Your task to perform on an android device: Go to internet settings Image 0: 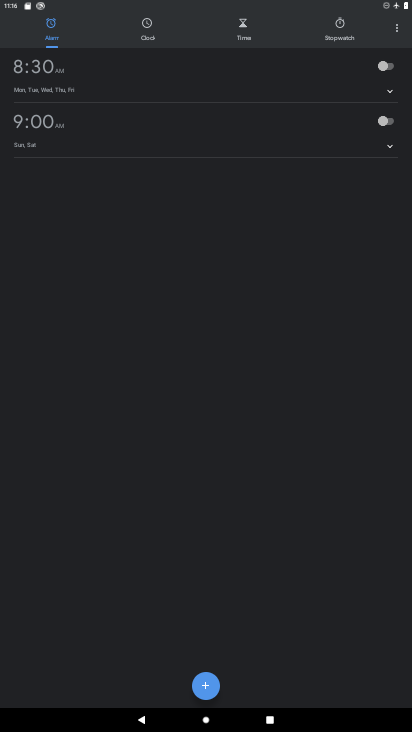
Step 0: press home button
Your task to perform on an android device: Go to internet settings Image 1: 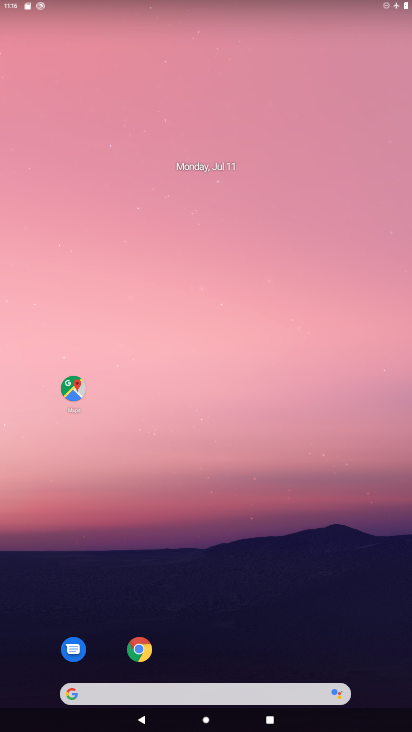
Step 1: drag from (278, 566) to (208, 114)
Your task to perform on an android device: Go to internet settings Image 2: 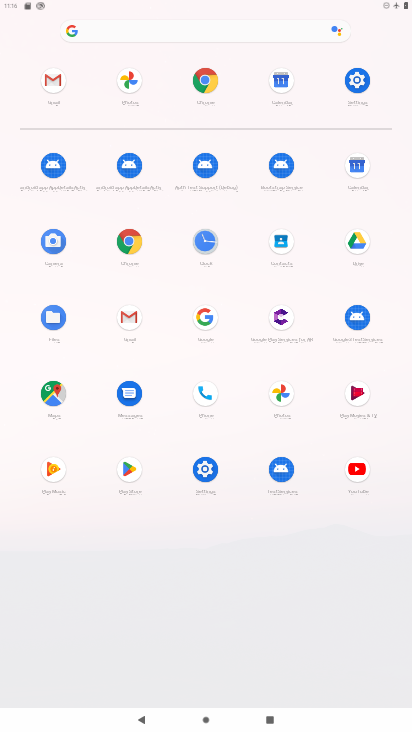
Step 2: click (361, 82)
Your task to perform on an android device: Go to internet settings Image 3: 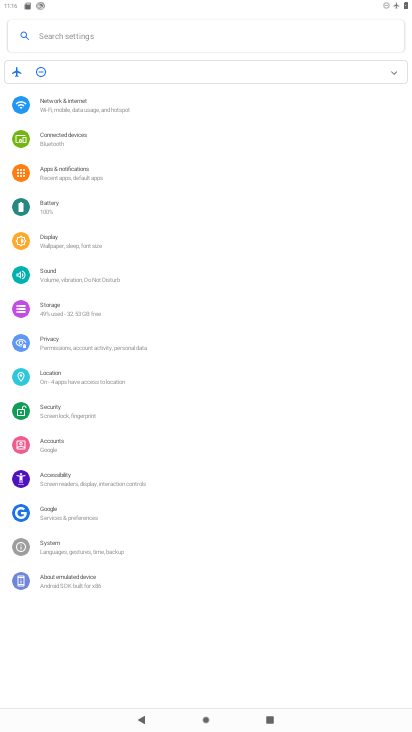
Step 3: click (82, 109)
Your task to perform on an android device: Go to internet settings Image 4: 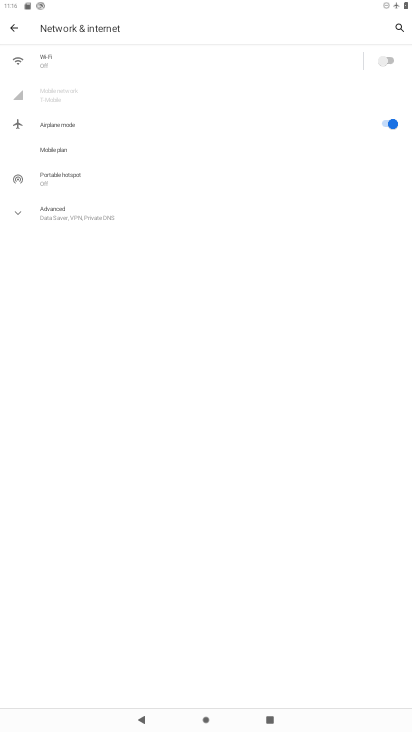
Step 4: click (72, 216)
Your task to perform on an android device: Go to internet settings Image 5: 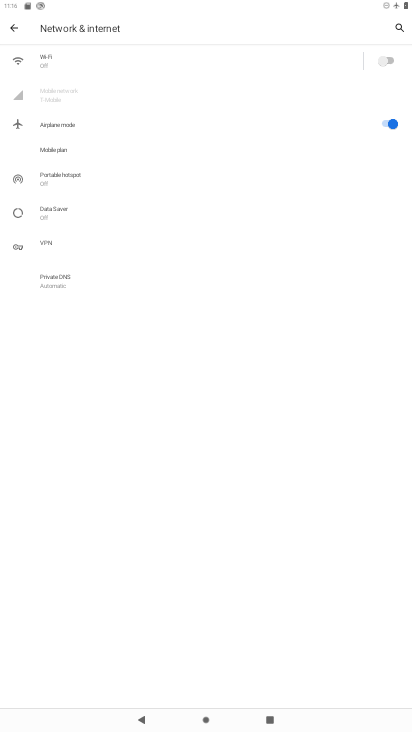
Step 5: task complete